Your task to perform on an android device: Open Amazon Image 0: 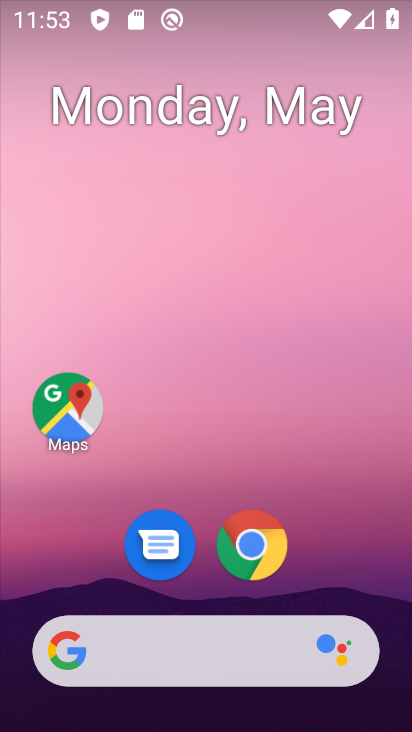
Step 0: click (239, 543)
Your task to perform on an android device: Open Amazon Image 1: 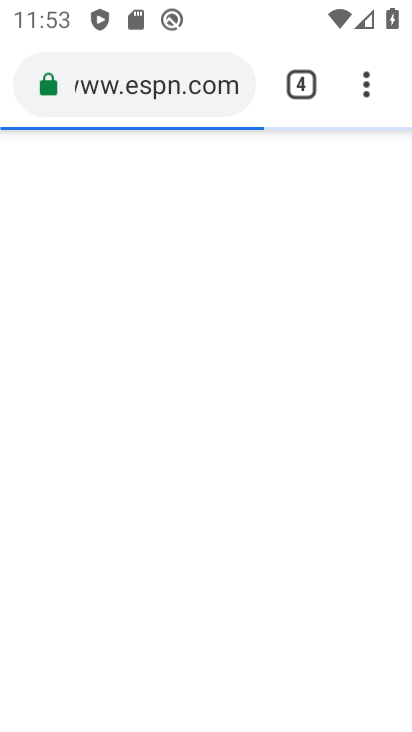
Step 1: click (298, 87)
Your task to perform on an android device: Open Amazon Image 2: 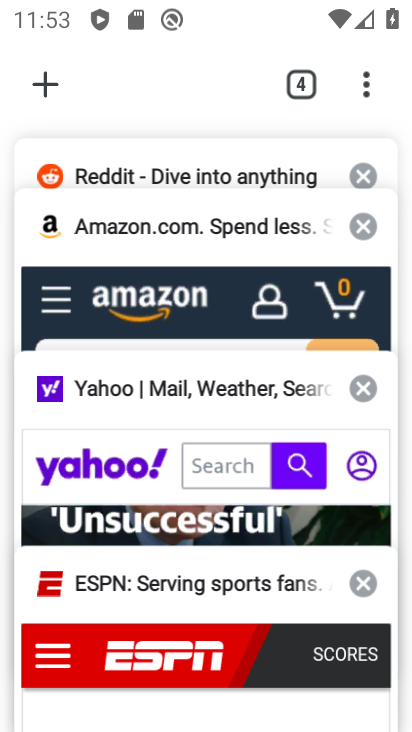
Step 2: click (241, 276)
Your task to perform on an android device: Open Amazon Image 3: 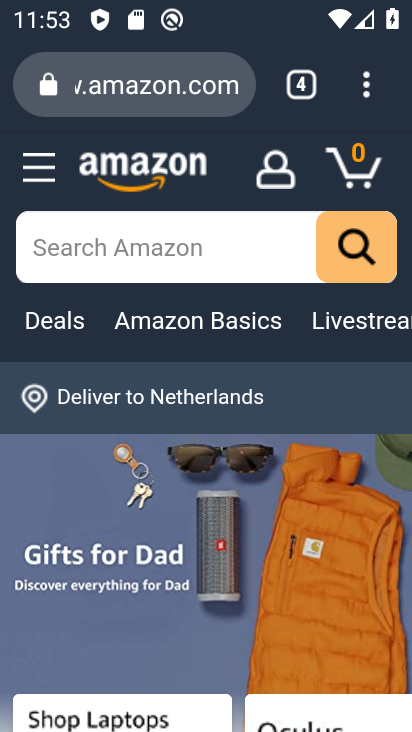
Step 3: task complete